Your task to perform on an android device: Go to location settings Image 0: 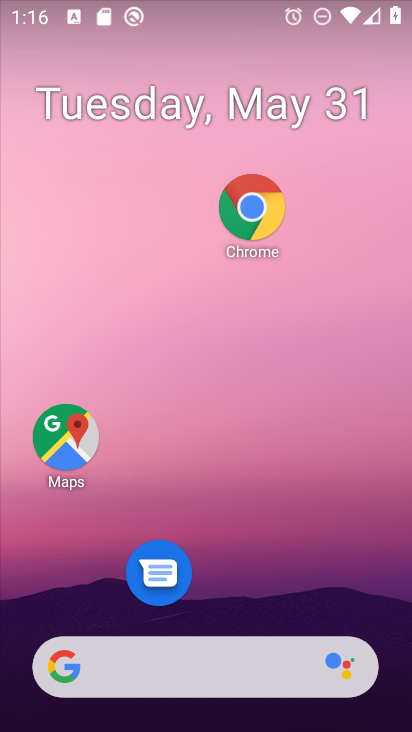
Step 0: drag from (251, 543) to (351, 7)
Your task to perform on an android device: Go to location settings Image 1: 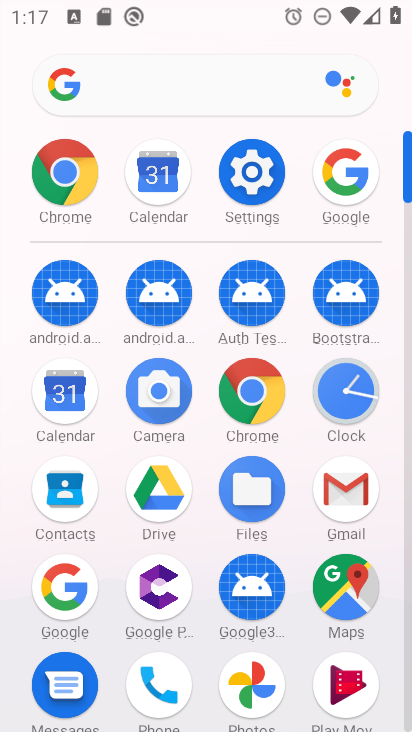
Step 1: click (256, 186)
Your task to perform on an android device: Go to location settings Image 2: 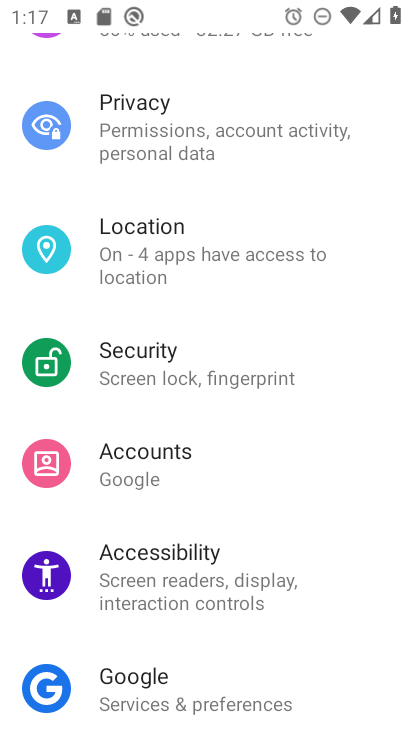
Step 2: drag from (194, 525) to (206, 250)
Your task to perform on an android device: Go to location settings Image 3: 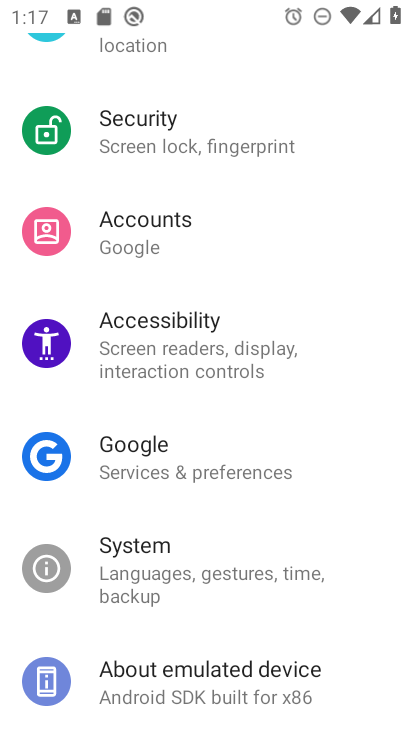
Step 3: drag from (179, 332) to (205, 663)
Your task to perform on an android device: Go to location settings Image 4: 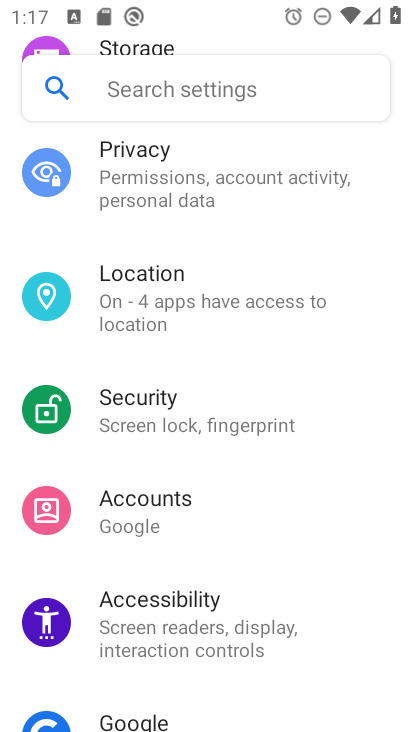
Step 4: click (208, 300)
Your task to perform on an android device: Go to location settings Image 5: 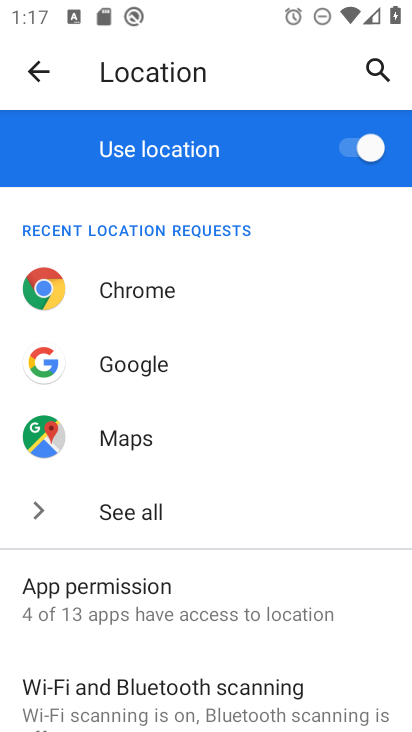
Step 5: task complete